Your task to perform on an android device: Search for apple airpods pro on newegg.com, select the first entry, and add it to the cart. Image 0: 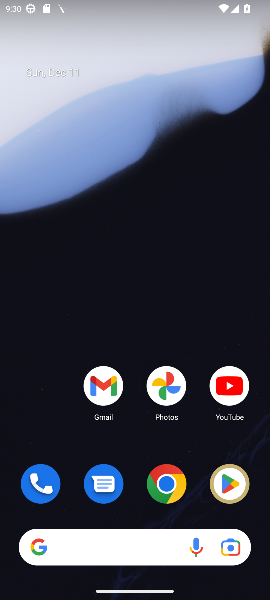
Step 0: click (168, 479)
Your task to perform on an android device: Search for apple airpods pro on newegg.com, select the first entry, and add it to the cart. Image 1: 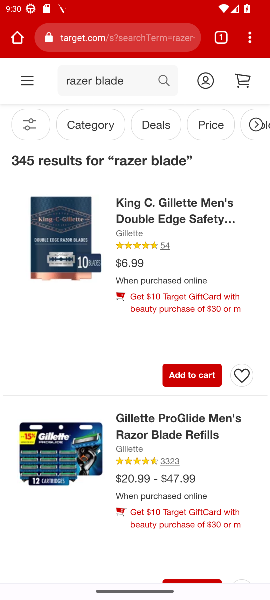
Step 1: click (132, 40)
Your task to perform on an android device: Search for apple airpods pro on newegg.com, select the first entry, and add it to the cart. Image 2: 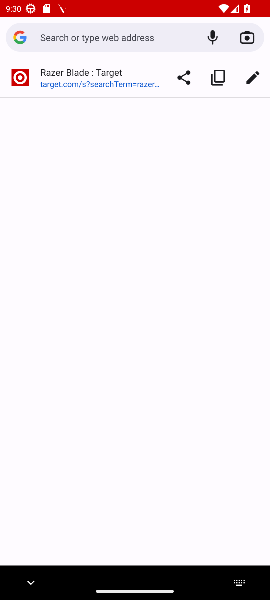
Step 2: type "newegg"
Your task to perform on an android device: Search for apple airpods pro on newegg.com, select the first entry, and add it to the cart. Image 3: 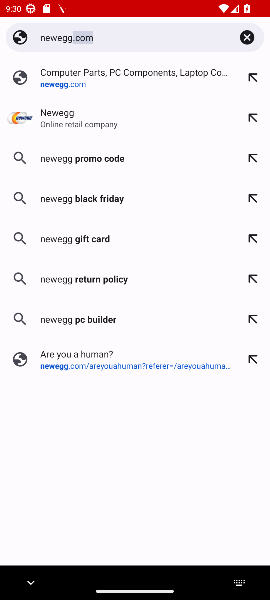
Step 3: click (80, 84)
Your task to perform on an android device: Search for apple airpods pro on newegg.com, select the first entry, and add it to the cart. Image 4: 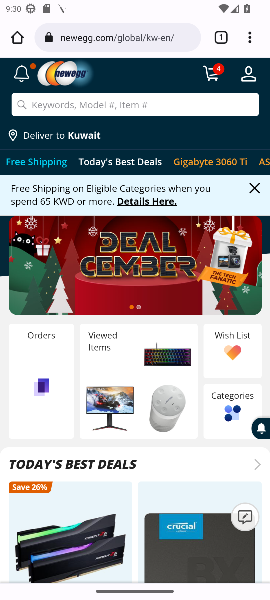
Step 4: click (120, 103)
Your task to perform on an android device: Search for apple airpods pro on newegg.com, select the first entry, and add it to the cart. Image 5: 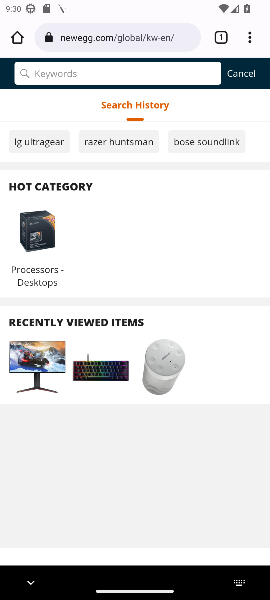
Step 5: type "apple airpods pro "
Your task to perform on an android device: Search for apple airpods pro on newegg.com, select the first entry, and add it to the cart. Image 6: 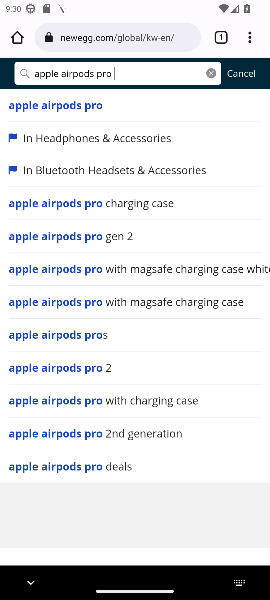
Step 6: click (69, 108)
Your task to perform on an android device: Search for apple airpods pro on newegg.com, select the first entry, and add it to the cart. Image 7: 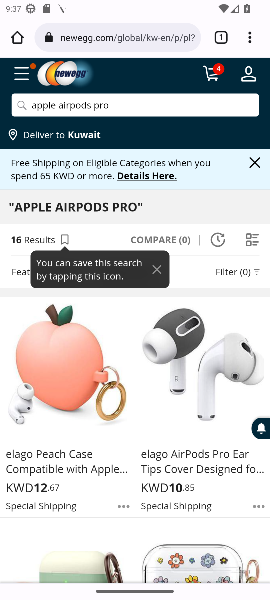
Step 7: task complete